Your task to perform on an android device: turn on location history Image 0: 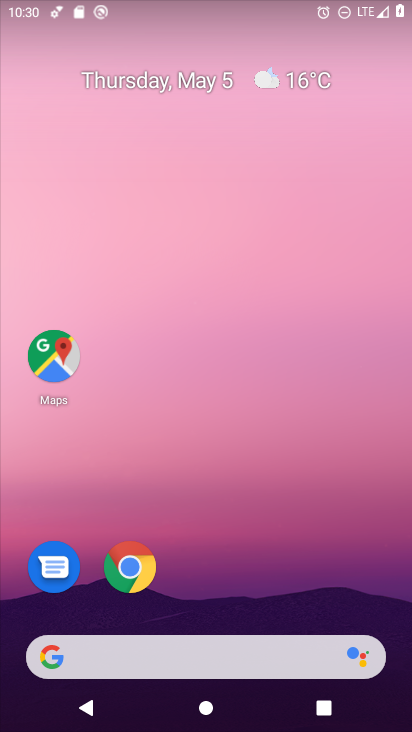
Step 0: drag from (327, 537) to (316, 26)
Your task to perform on an android device: turn on location history Image 1: 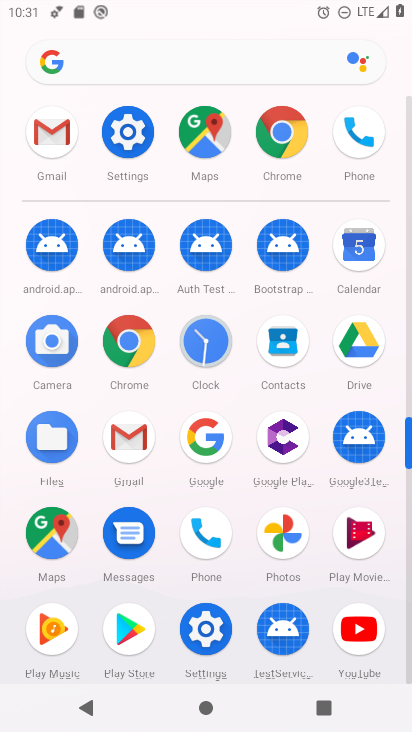
Step 1: click (135, 135)
Your task to perform on an android device: turn on location history Image 2: 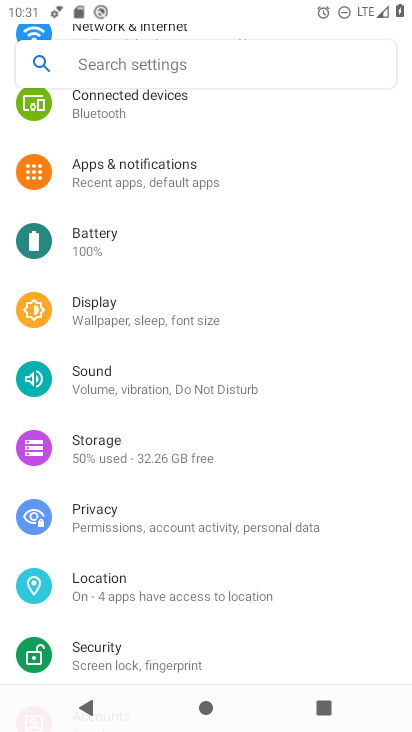
Step 2: click (189, 583)
Your task to perform on an android device: turn on location history Image 3: 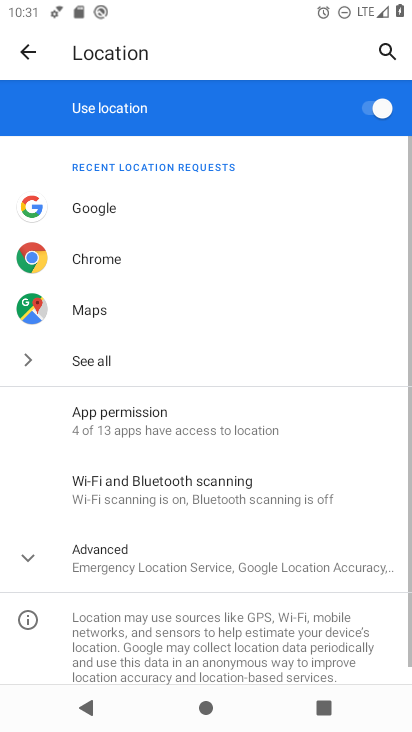
Step 3: click (26, 553)
Your task to perform on an android device: turn on location history Image 4: 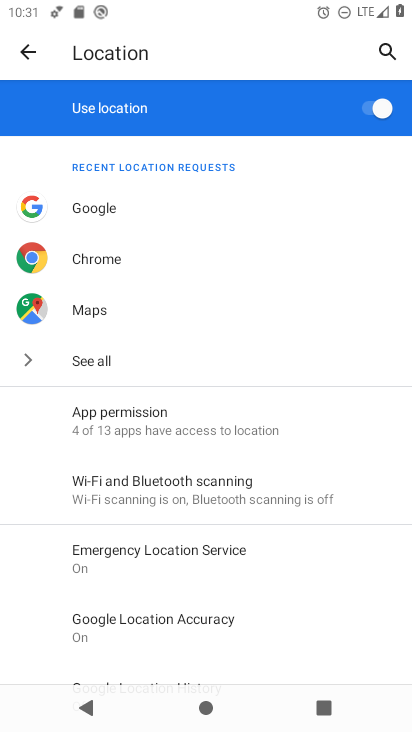
Step 4: drag from (259, 569) to (328, 298)
Your task to perform on an android device: turn on location history Image 5: 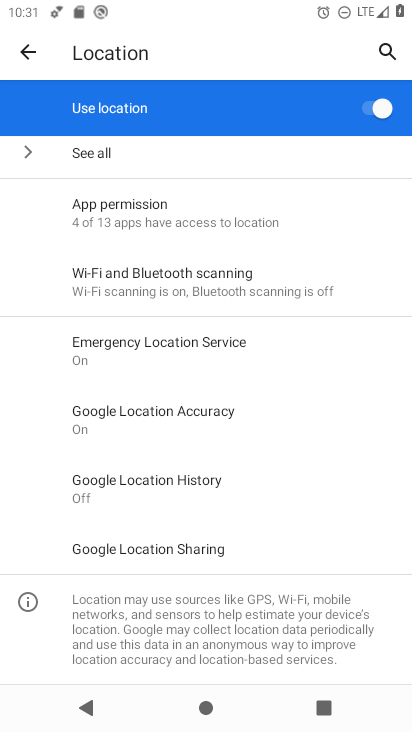
Step 5: click (180, 490)
Your task to perform on an android device: turn on location history Image 6: 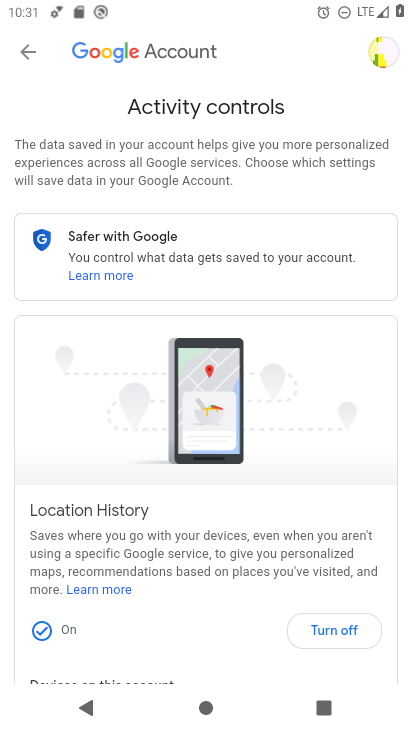
Step 6: task complete